Your task to perform on an android device: star an email in the gmail app Image 0: 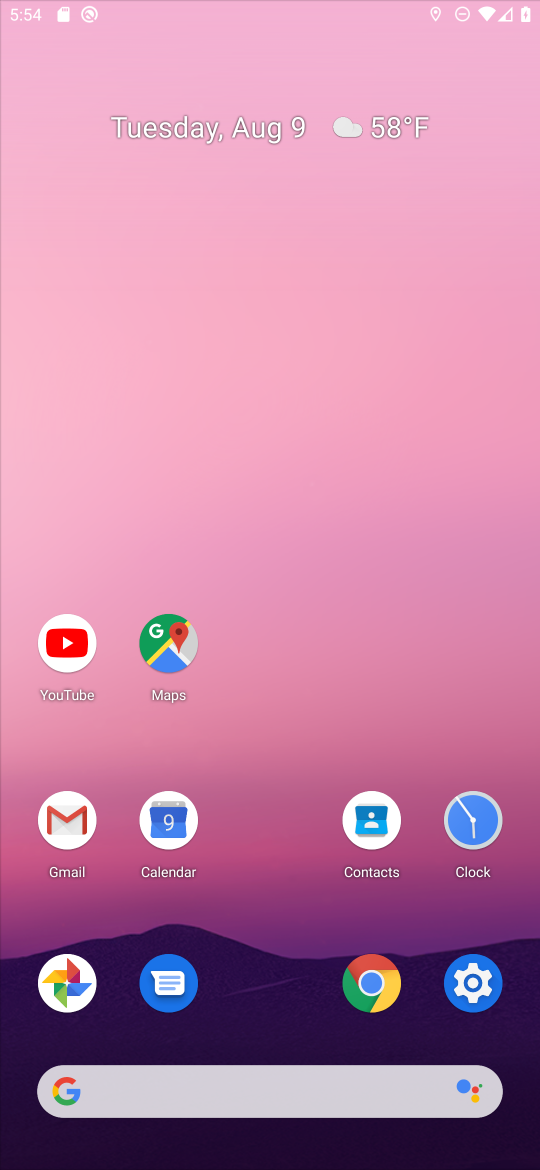
Step 0: press home button
Your task to perform on an android device: star an email in the gmail app Image 1: 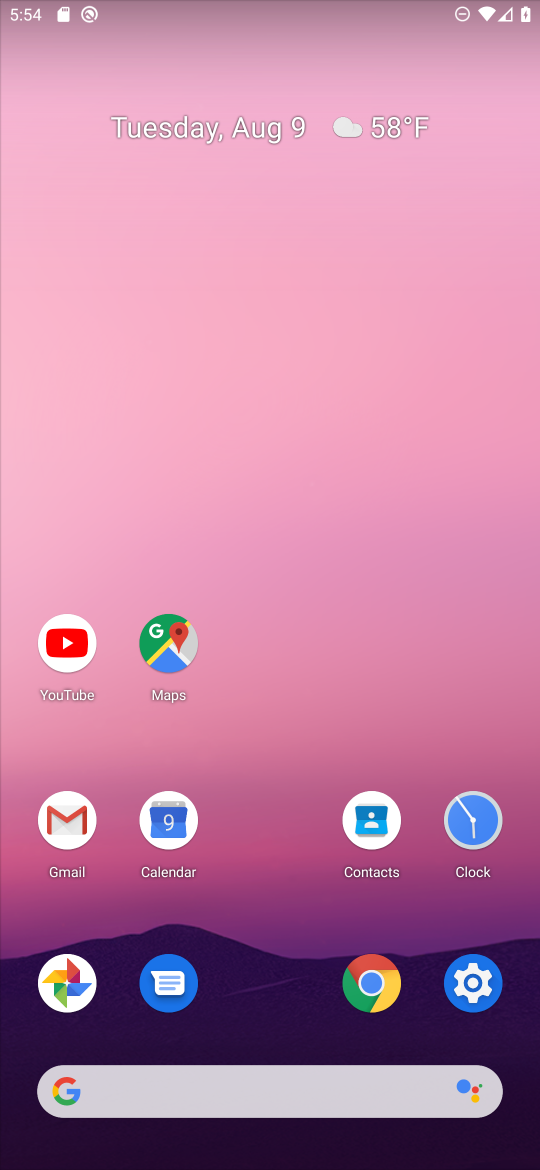
Step 1: click (71, 825)
Your task to perform on an android device: star an email in the gmail app Image 2: 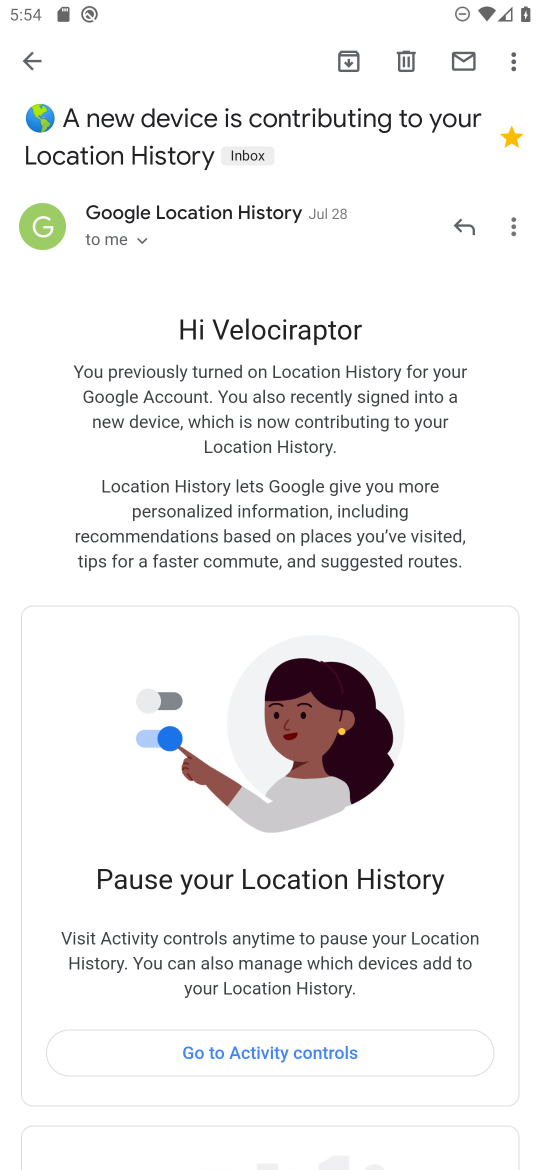
Step 2: click (29, 54)
Your task to perform on an android device: star an email in the gmail app Image 3: 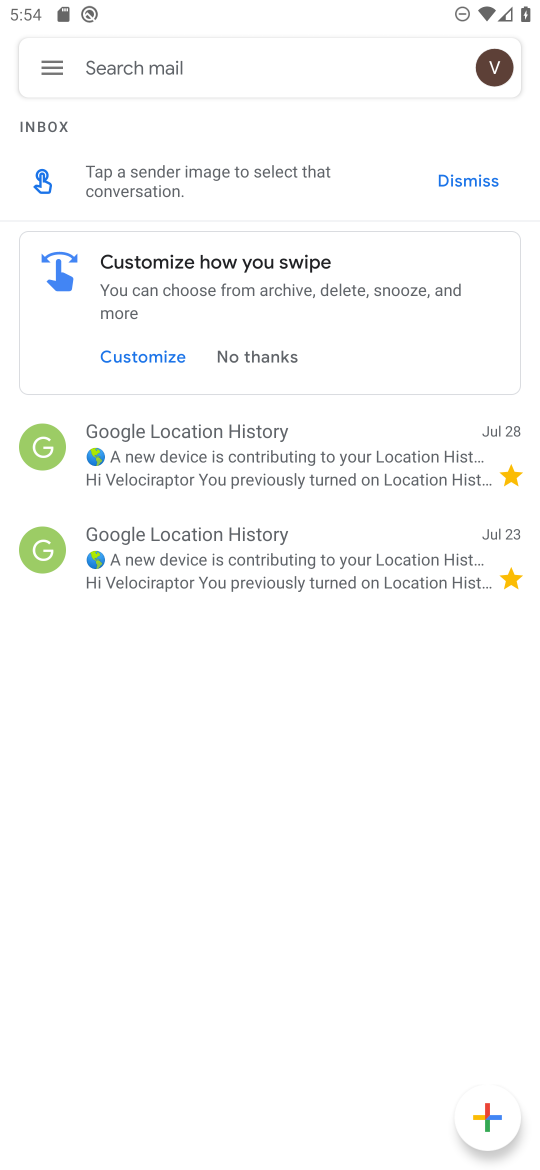
Step 3: task complete